Your task to perform on an android device: turn on translation in the chrome app Image 0: 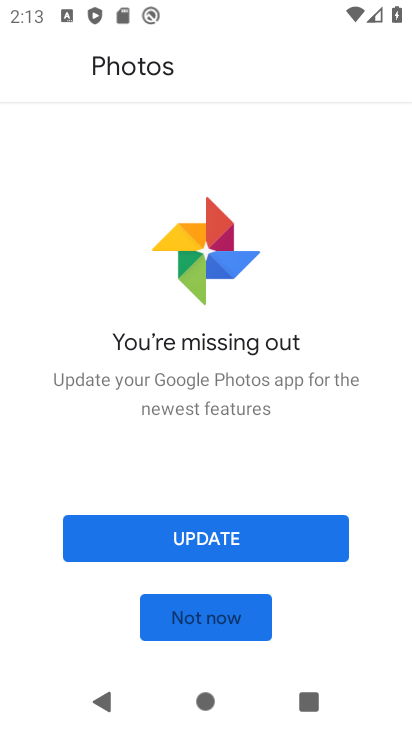
Step 0: press home button
Your task to perform on an android device: turn on translation in the chrome app Image 1: 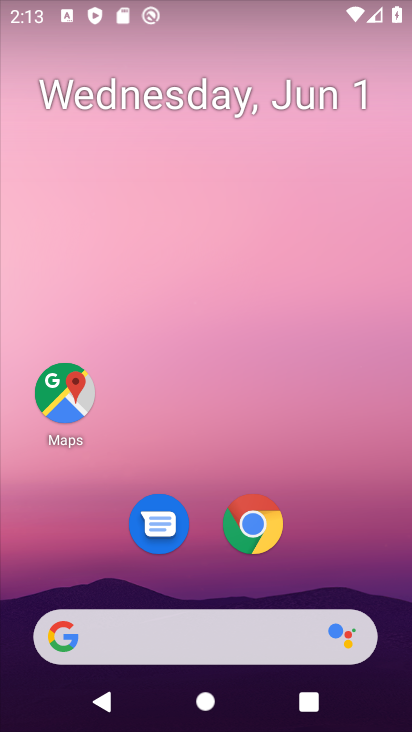
Step 1: click (259, 520)
Your task to perform on an android device: turn on translation in the chrome app Image 2: 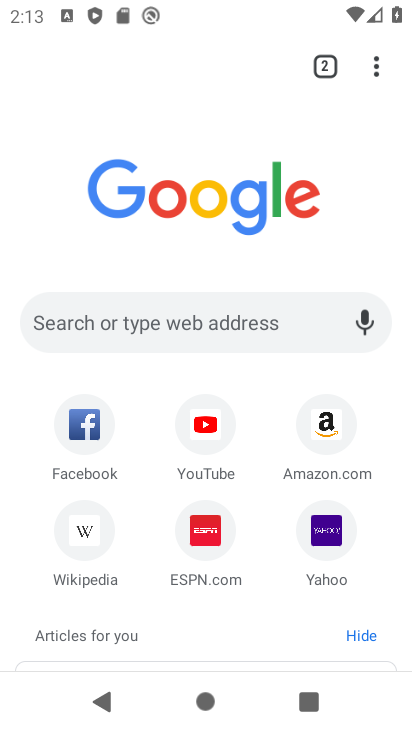
Step 2: click (366, 50)
Your task to perform on an android device: turn on translation in the chrome app Image 3: 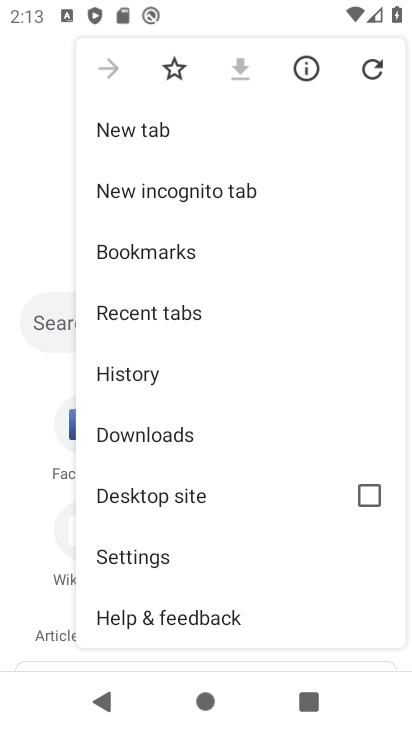
Step 3: click (212, 551)
Your task to perform on an android device: turn on translation in the chrome app Image 4: 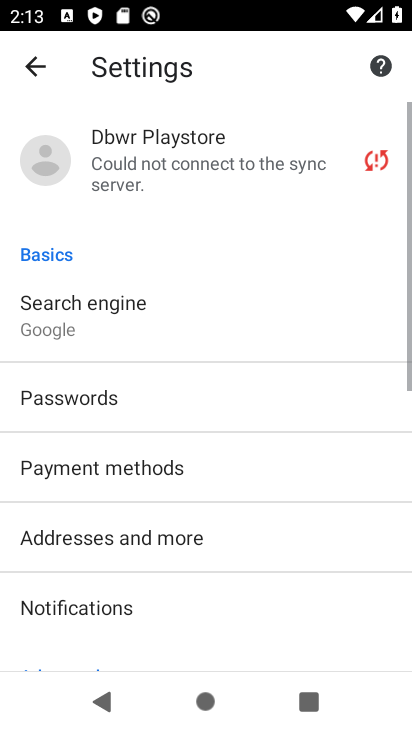
Step 4: drag from (272, 493) to (280, 69)
Your task to perform on an android device: turn on translation in the chrome app Image 5: 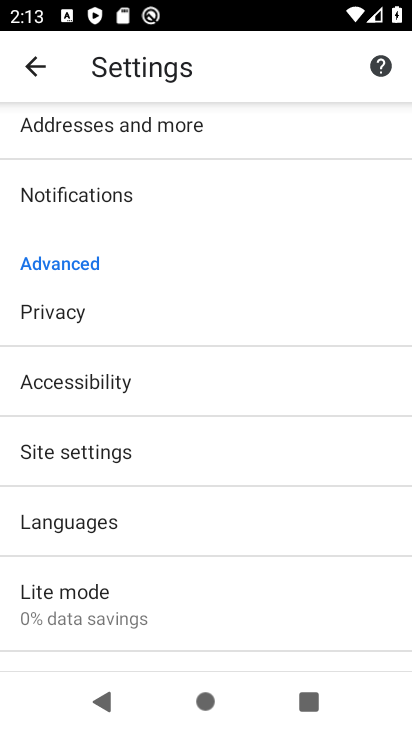
Step 5: click (235, 513)
Your task to perform on an android device: turn on translation in the chrome app Image 6: 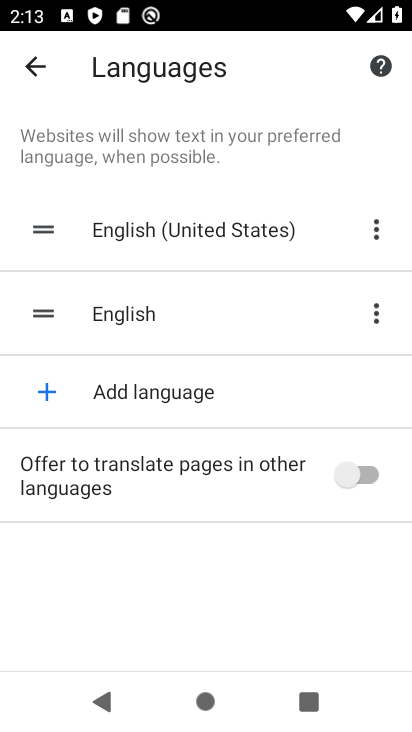
Step 6: click (358, 473)
Your task to perform on an android device: turn on translation in the chrome app Image 7: 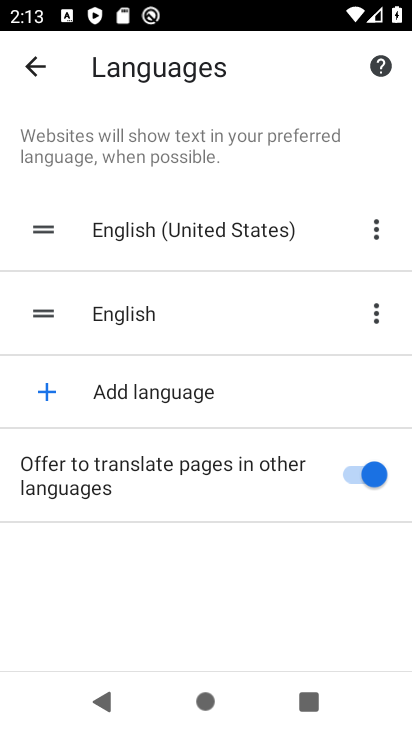
Step 7: task complete